Your task to perform on an android device: Search for Italian restaurants on Maps Image 0: 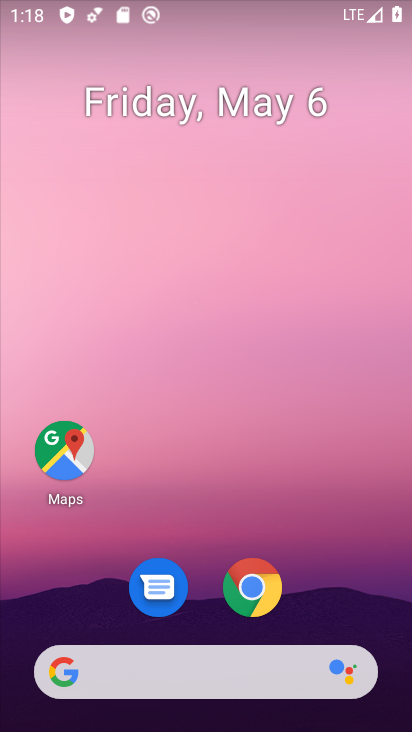
Step 0: drag from (313, 586) to (320, 528)
Your task to perform on an android device: Search for Italian restaurants on Maps Image 1: 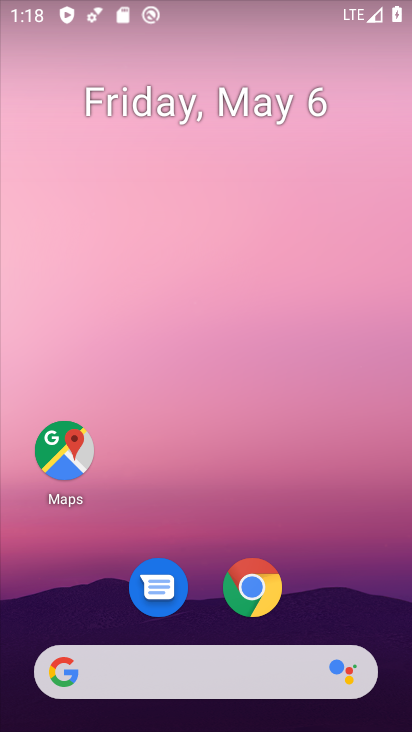
Step 1: click (56, 453)
Your task to perform on an android device: Search for Italian restaurants on Maps Image 2: 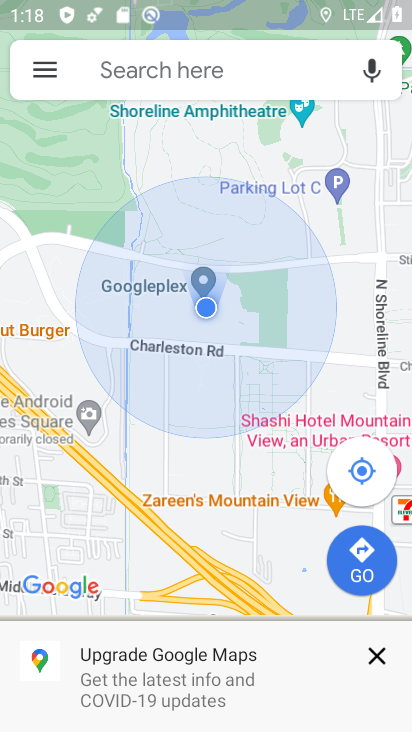
Step 2: click (165, 70)
Your task to perform on an android device: Search for Italian restaurants on Maps Image 3: 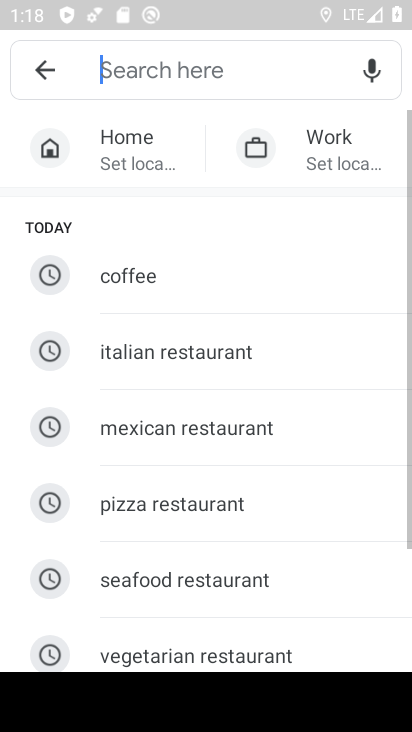
Step 3: click (187, 355)
Your task to perform on an android device: Search for Italian restaurants on Maps Image 4: 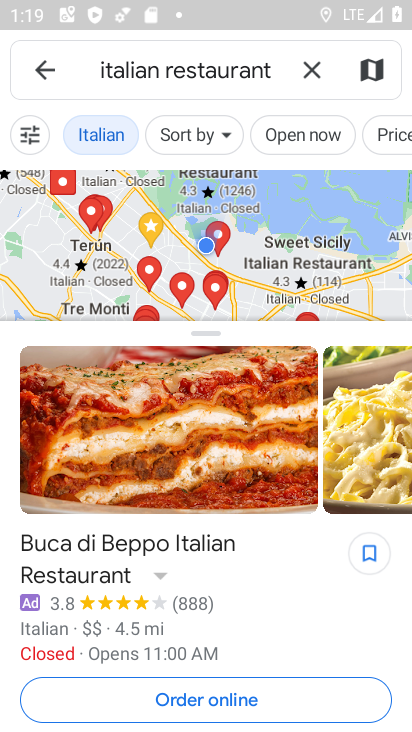
Step 4: task complete